Your task to perform on an android device: turn on javascript in the chrome app Image 0: 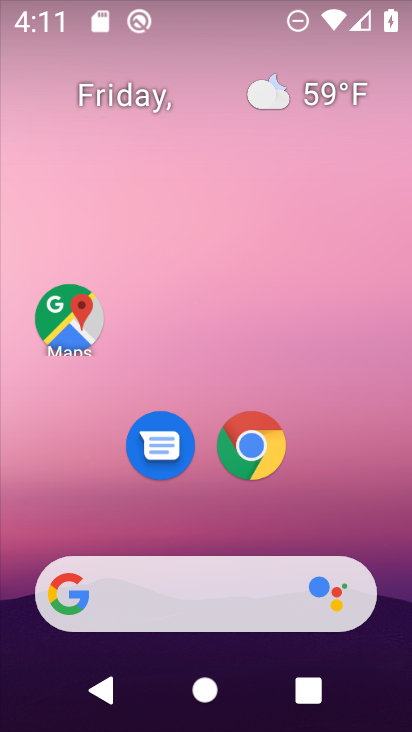
Step 0: click (249, 445)
Your task to perform on an android device: turn on javascript in the chrome app Image 1: 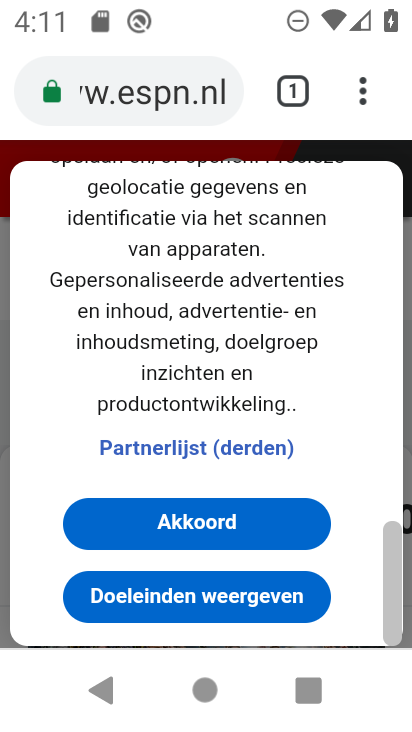
Step 1: click (359, 99)
Your task to perform on an android device: turn on javascript in the chrome app Image 2: 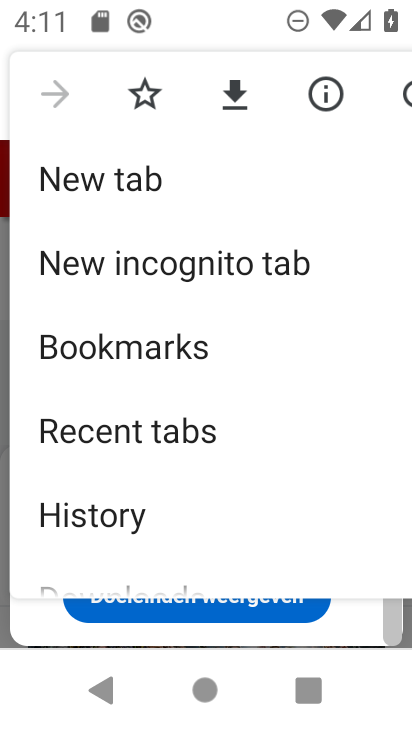
Step 2: drag from (183, 509) to (266, 218)
Your task to perform on an android device: turn on javascript in the chrome app Image 3: 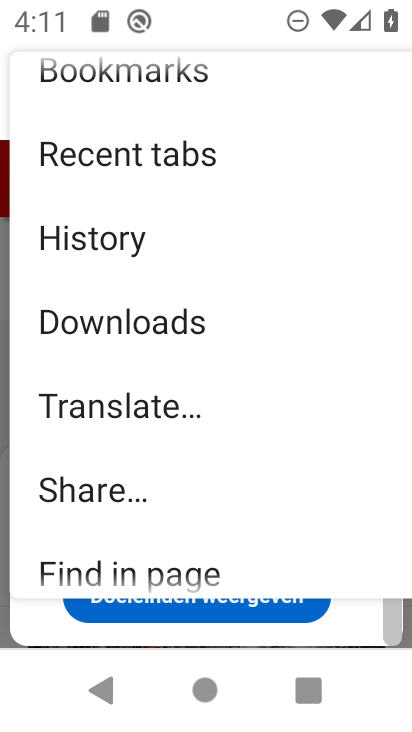
Step 3: drag from (210, 471) to (260, 175)
Your task to perform on an android device: turn on javascript in the chrome app Image 4: 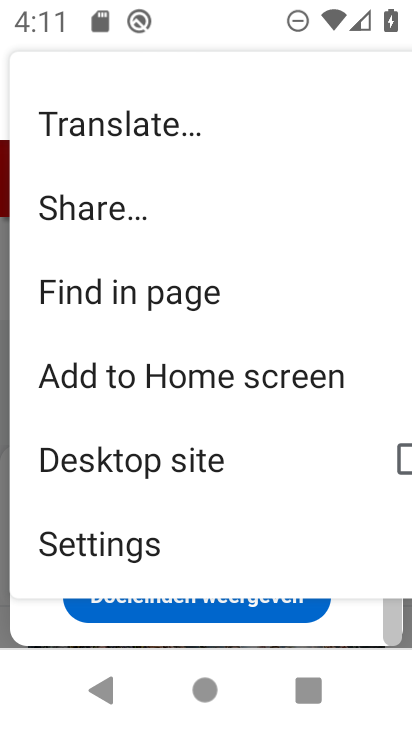
Step 4: drag from (258, 489) to (320, 198)
Your task to perform on an android device: turn on javascript in the chrome app Image 5: 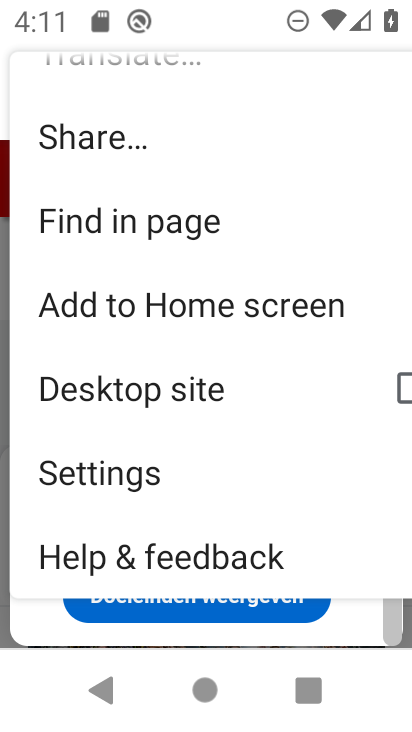
Step 5: click (86, 477)
Your task to perform on an android device: turn on javascript in the chrome app Image 6: 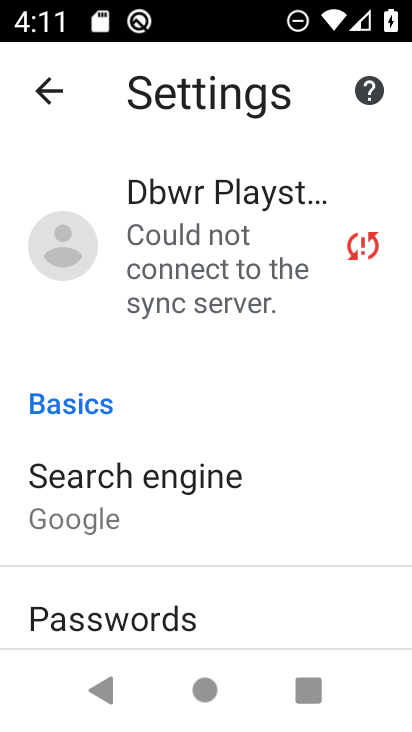
Step 6: drag from (253, 592) to (312, 213)
Your task to perform on an android device: turn on javascript in the chrome app Image 7: 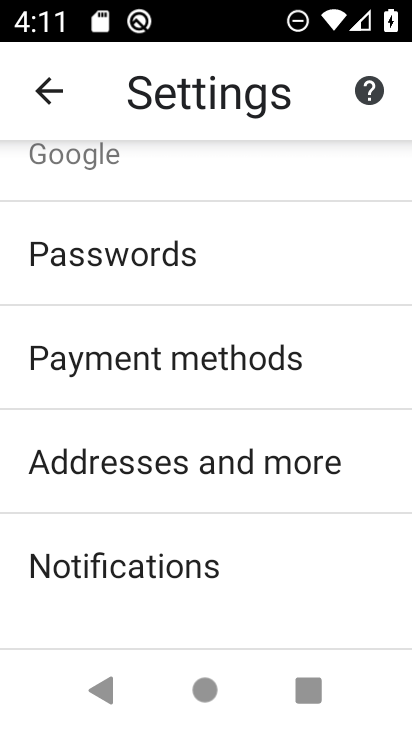
Step 7: drag from (278, 566) to (331, 227)
Your task to perform on an android device: turn on javascript in the chrome app Image 8: 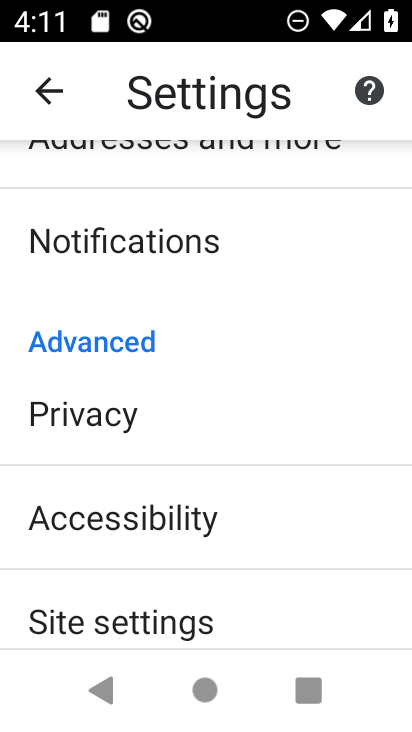
Step 8: drag from (269, 546) to (303, 264)
Your task to perform on an android device: turn on javascript in the chrome app Image 9: 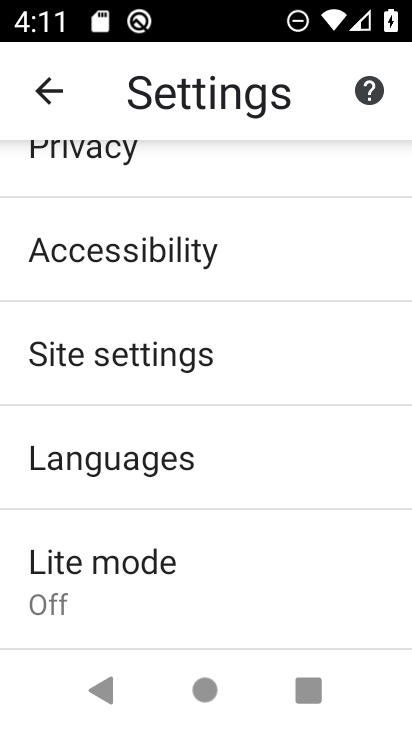
Step 9: click (99, 366)
Your task to perform on an android device: turn on javascript in the chrome app Image 10: 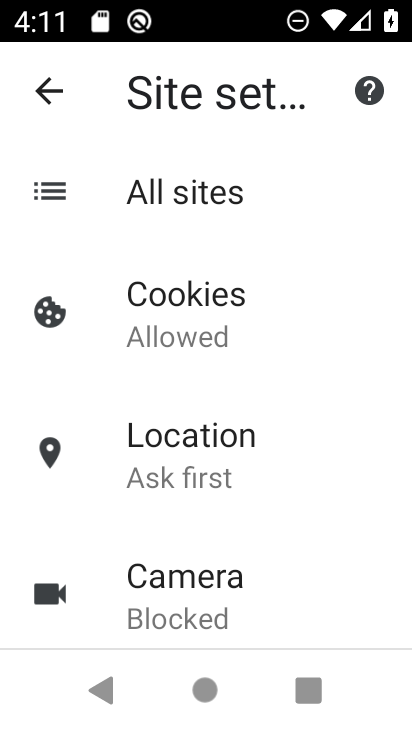
Step 10: drag from (277, 567) to (289, 247)
Your task to perform on an android device: turn on javascript in the chrome app Image 11: 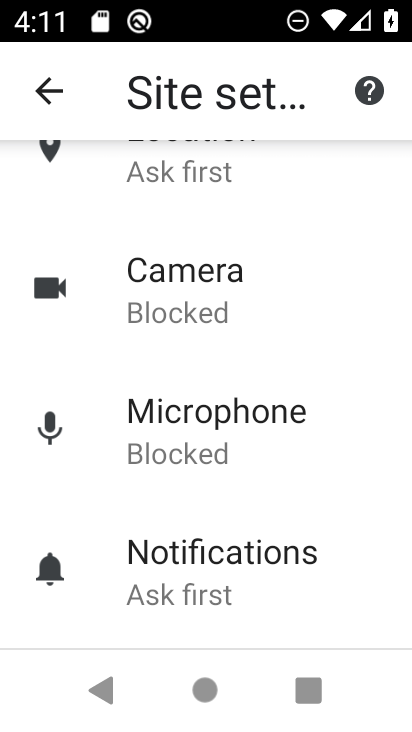
Step 11: drag from (274, 548) to (315, 217)
Your task to perform on an android device: turn on javascript in the chrome app Image 12: 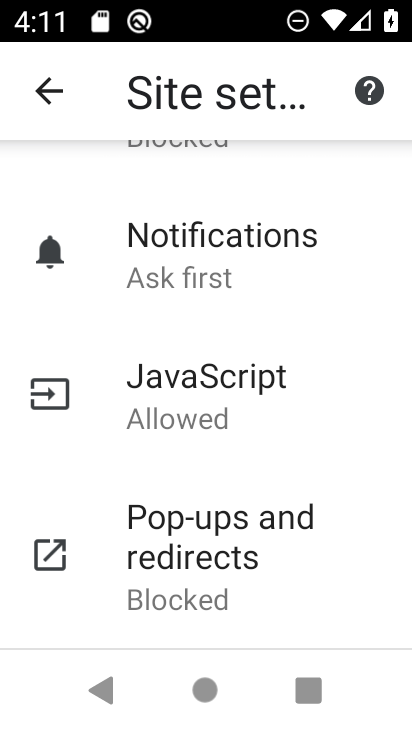
Step 12: click (170, 399)
Your task to perform on an android device: turn on javascript in the chrome app Image 13: 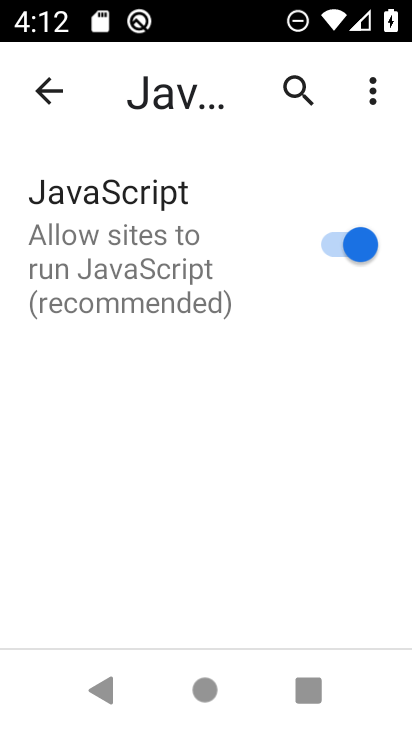
Step 13: task complete